Your task to perform on an android device: Turn on the flashlight Image 0: 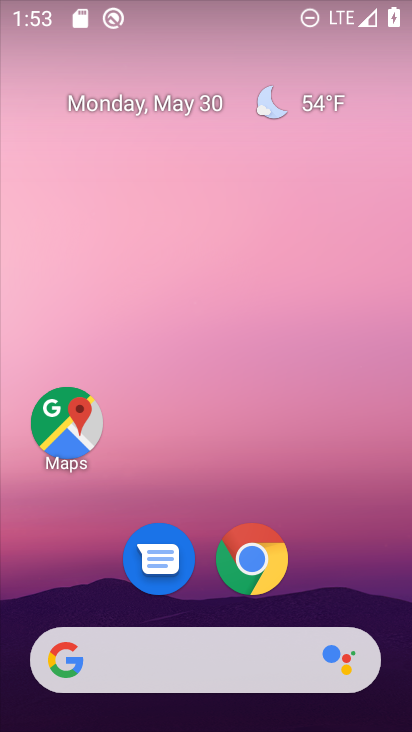
Step 0: drag from (320, 577) to (289, 36)
Your task to perform on an android device: Turn on the flashlight Image 1: 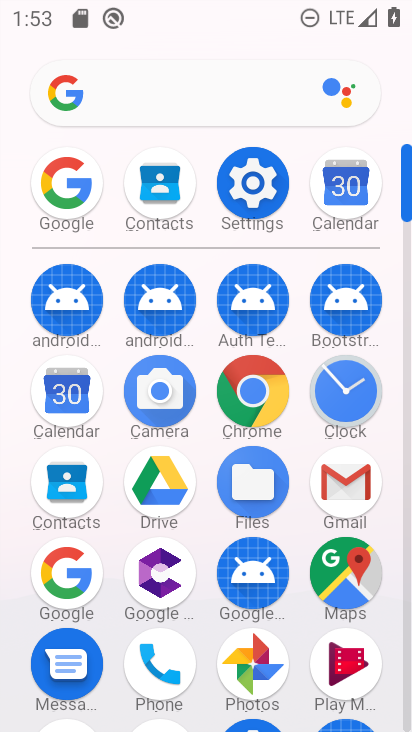
Step 1: click (260, 187)
Your task to perform on an android device: Turn on the flashlight Image 2: 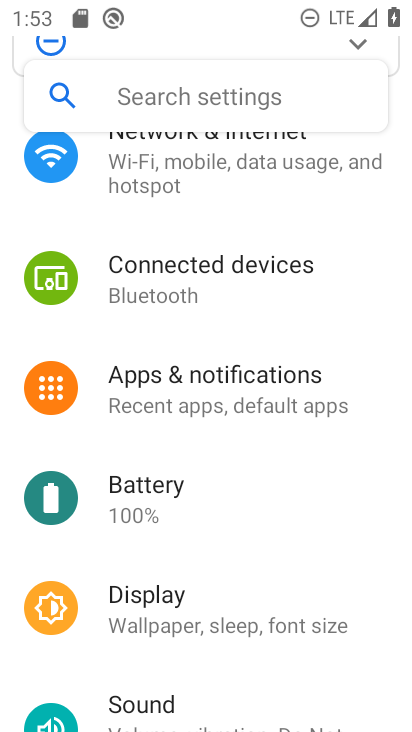
Step 2: task complete